Your task to perform on an android device: empty trash in the gmail app Image 0: 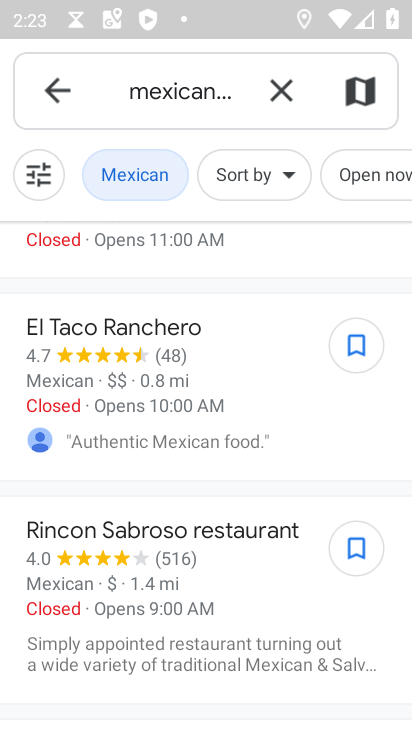
Step 0: press home button
Your task to perform on an android device: empty trash in the gmail app Image 1: 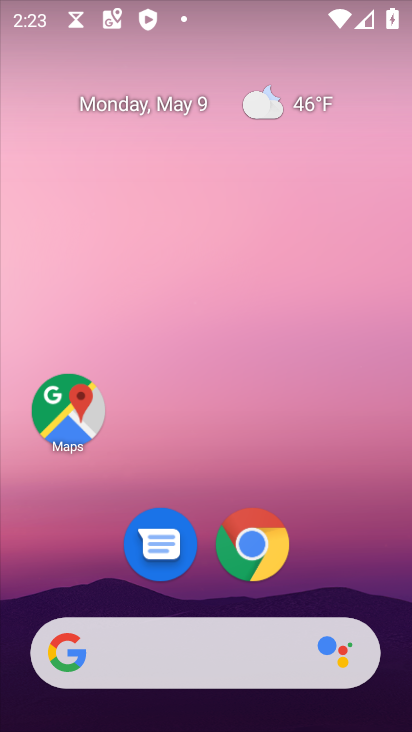
Step 1: drag from (295, 489) to (93, 94)
Your task to perform on an android device: empty trash in the gmail app Image 2: 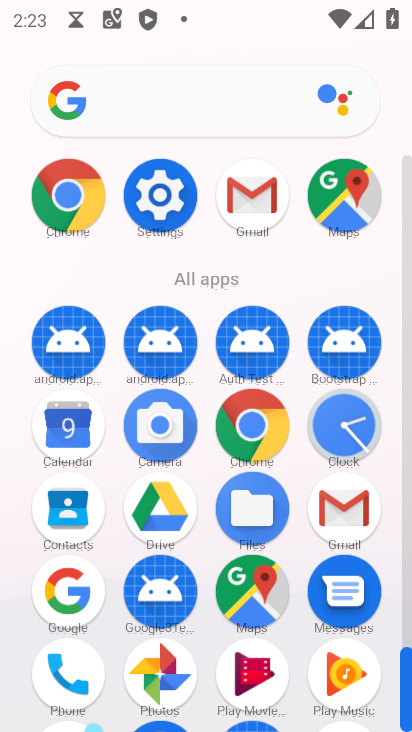
Step 2: click (241, 181)
Your task to perform on an android device: empty trash in the gmail app Image 3: 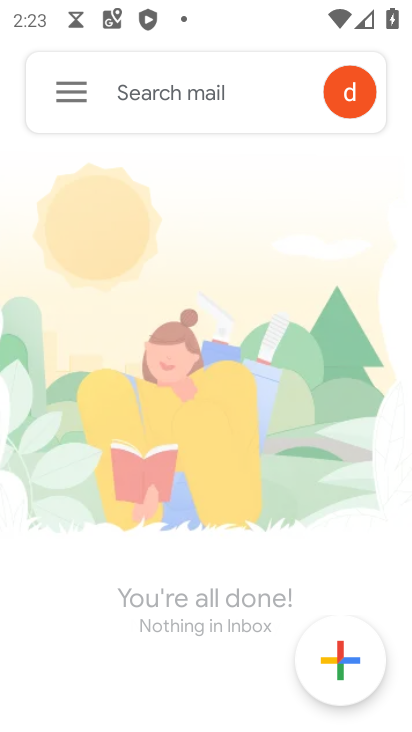
Step 3: click (67, 90)
Your task to perform on an android device: empty trash in the gmail app Image 4: 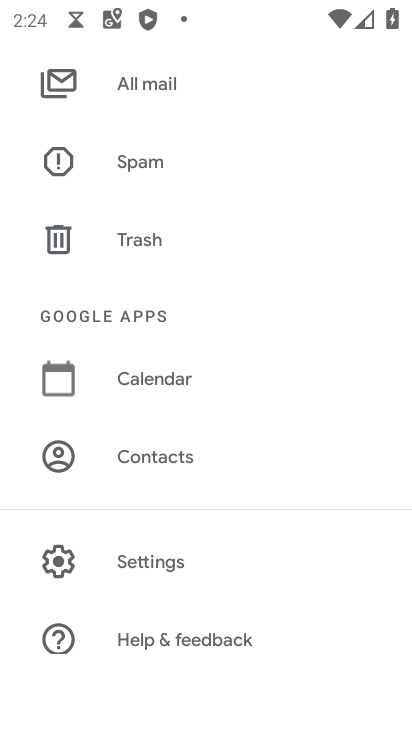
Step 4: click (131, 244)
Your task to perform on an android device: empty trash in the gmail app Image 5: 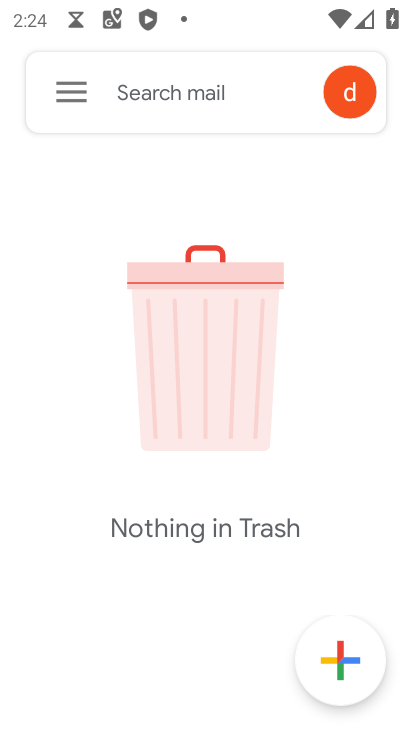
Step 5: task complete